Your task to perform on an android device: turn off notifications settings in the gmail app Image 0: 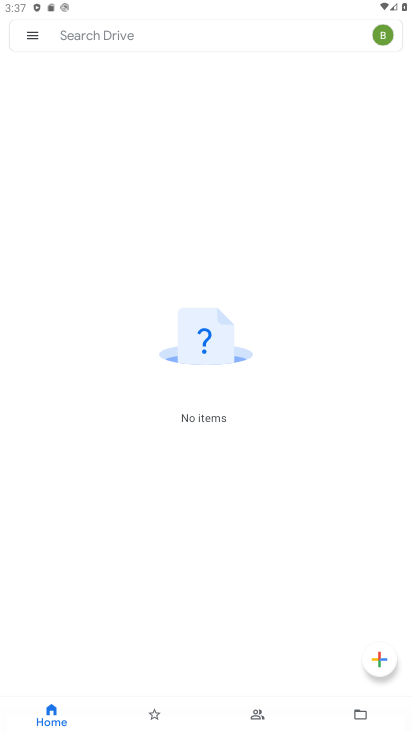
Step 0: press home button
Your task to perform on an android device: turn off notifications settings in the gmail app Image 1: 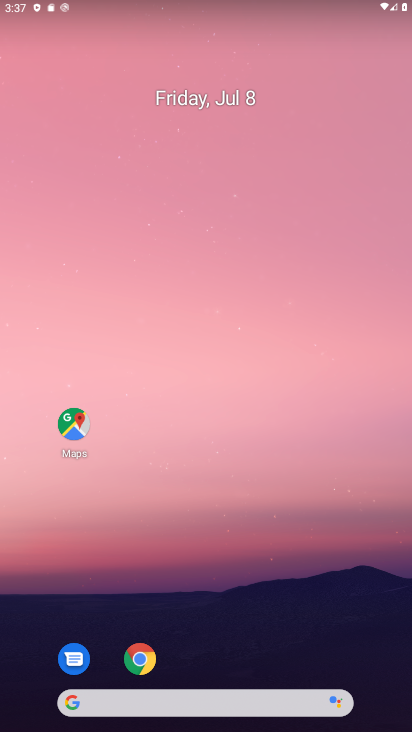
Step 1: drag from (245, 610) to (284, 117)
Your task to perform on an android device: turn off notifications settings in the gmail app Image 2: 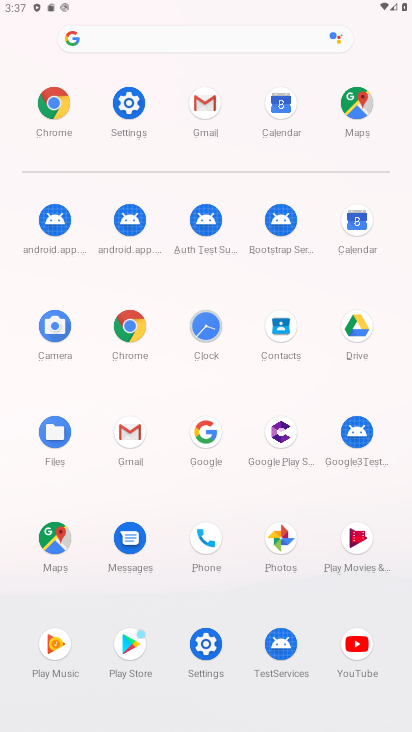
Step 2: click (121, 454)
Your task to perform on an android device: turn off notifications settings in the gmail app Image 3: 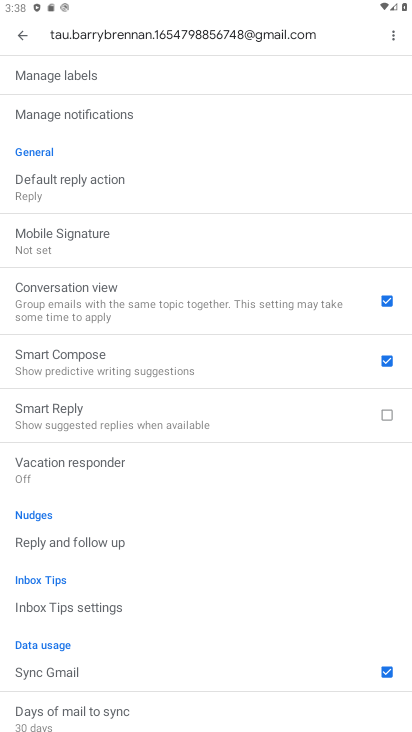
Step 3: click (116, 120)
Your task to perform on an android device: turn off notifications settings in the gmail app Image 4: 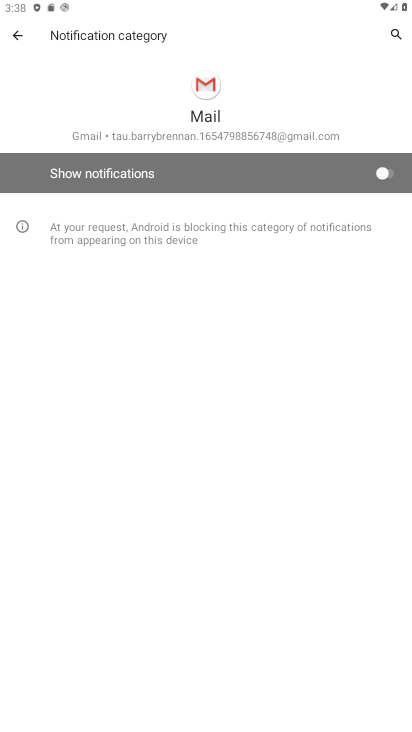
Step 4: task complete